Your task to perform on an android device: toggle pop-ups in chrome Image 0: 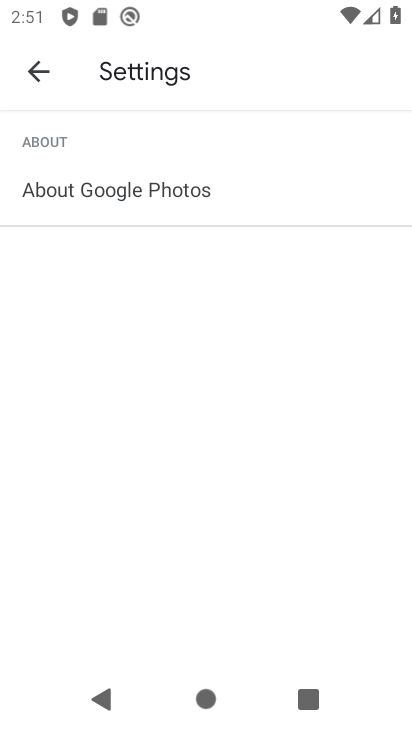
Step 0: press home button
Your task to perform on an android device: toggle pop-ups in chrome Image 1: 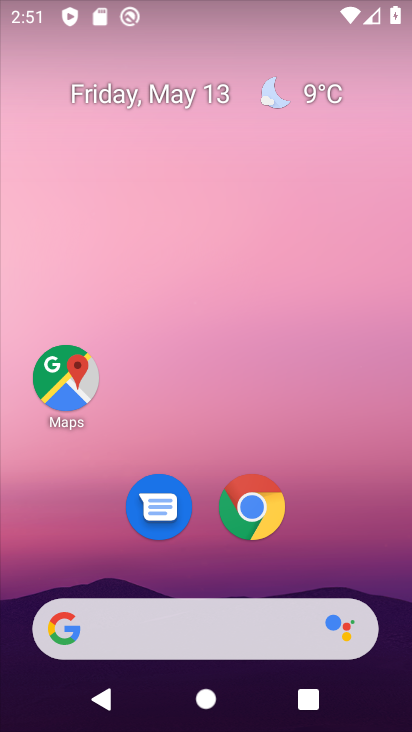
Step 1: click (204, 491)
Your task to perform on an android device: toggle pop-ups in chrome Image 2: 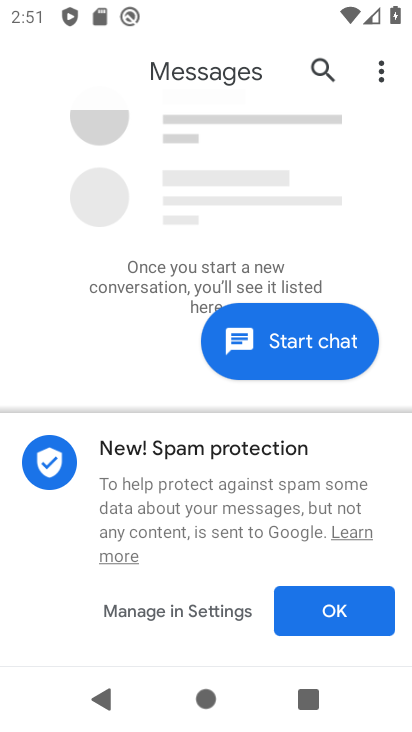
Step 2: press home button
Your task to perform on an android device: toggle pop-ups in chrome Image 3: 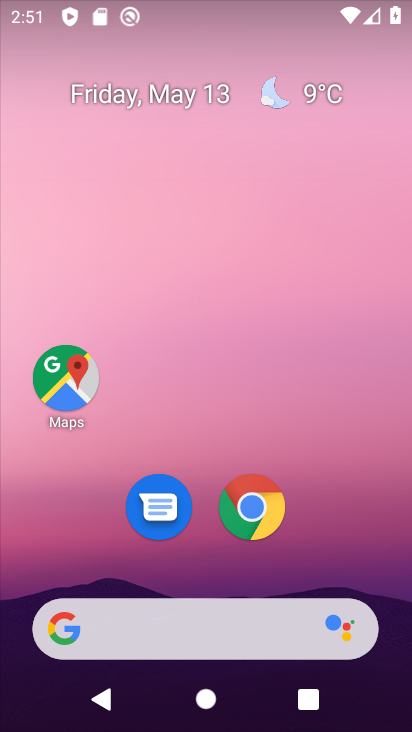
Step 3: click (227, 512)
Your task to perform on an android device: toggle pop-ups in chrome Image 4: 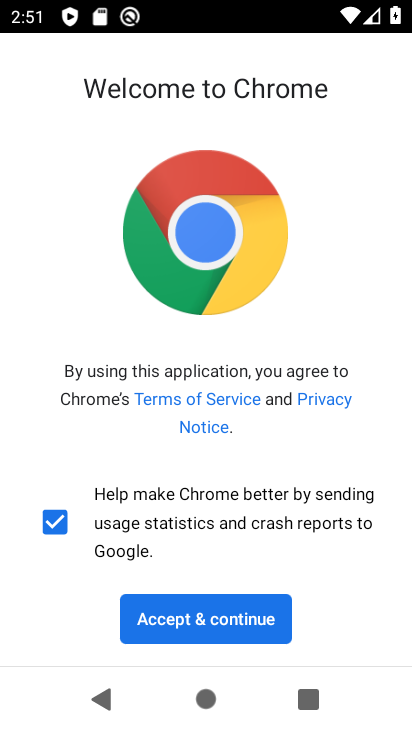
Step 4: click (239, 631)
Your task to perform on an android device: toggle pop-ups in chrome Image 5: 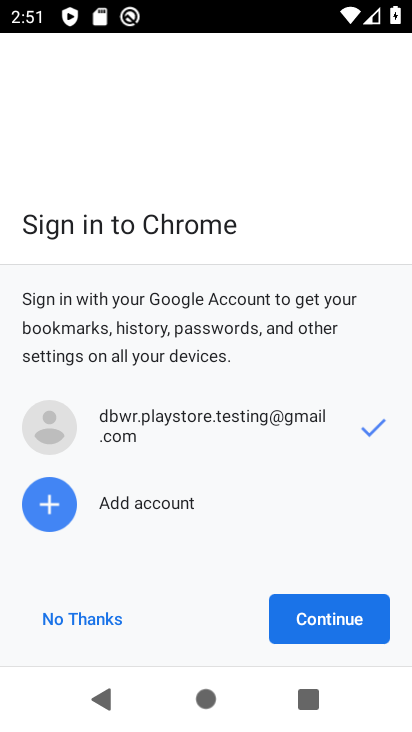
Step 5: click (350, 629)
Your task to perform on an android device: toggle pop-ups in chrome Image 6: 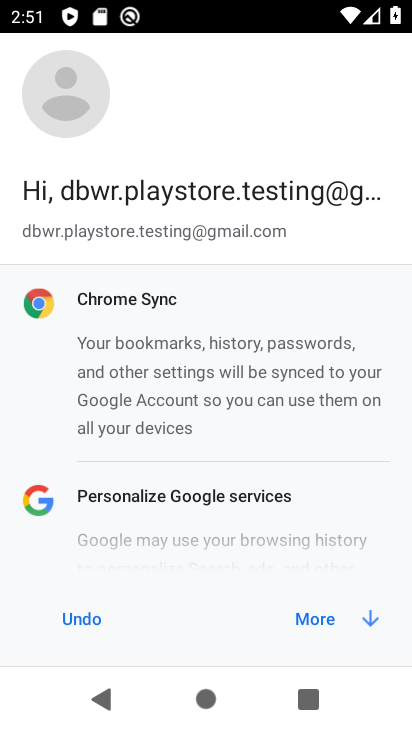
Step 6: click (350, 629)
Your task to perform on an android device: toggle pop-ups in chrome Image 7: 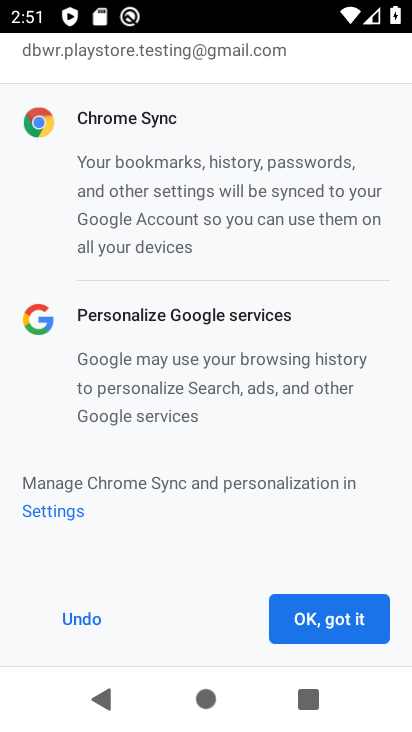
Step 7: click (350, 629)
Your task to perform on an android device: toggle pop-ups in chrome Image 8: 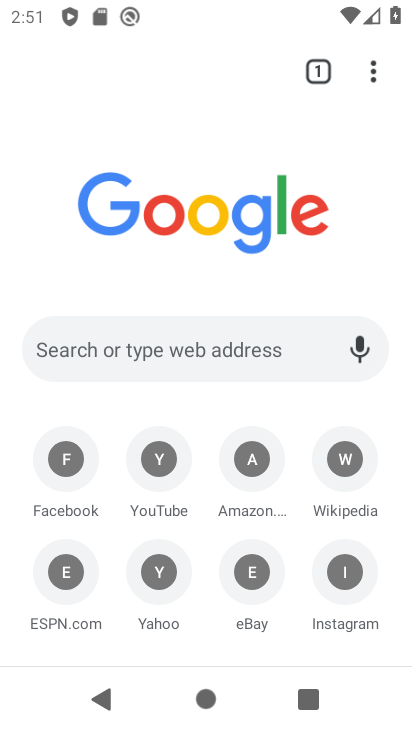
Step 8: click (374, 71)
Your task to perform on an android device: toggle pop-ups in chrome Image 9: 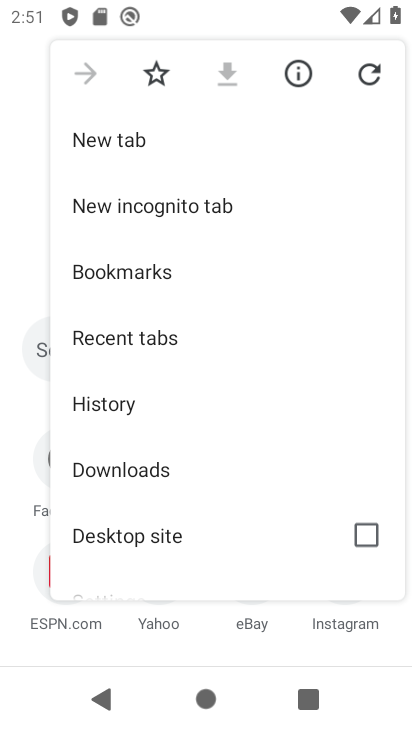
Step 9: drag from (233, 557) to (237, 46)
Your task to perform on an android device: toggle pop-ups in chrome Image 10: 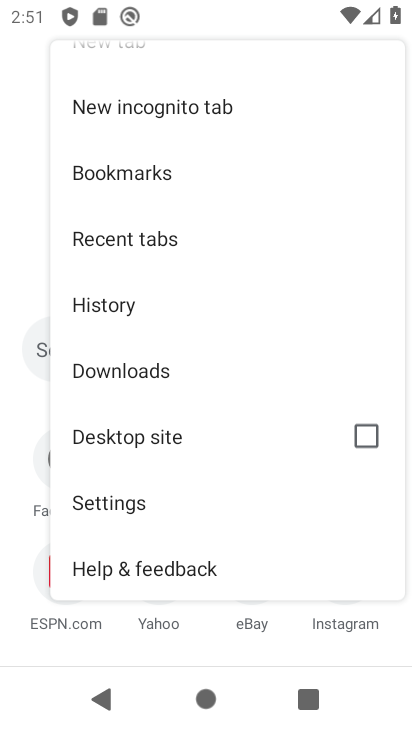
Step 10: click (131, 505)
Your task to perform on an android device: toggle pop-ups in chrome Image 11: 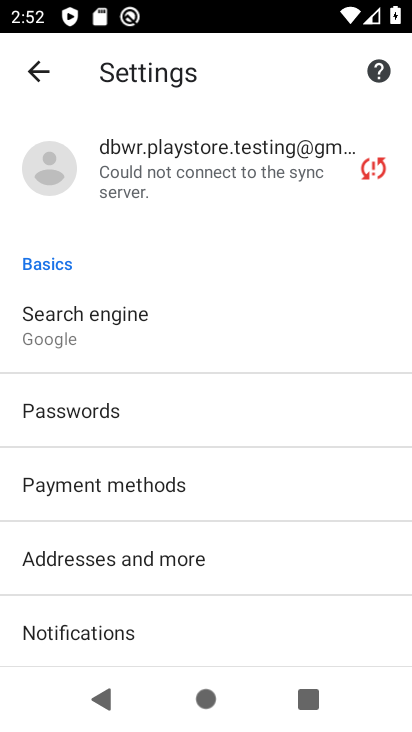
Step 11: drag from (225, 612) to (292, 150)
Your task to perform on an android device: toggle pop-ups in chrome Image 12: 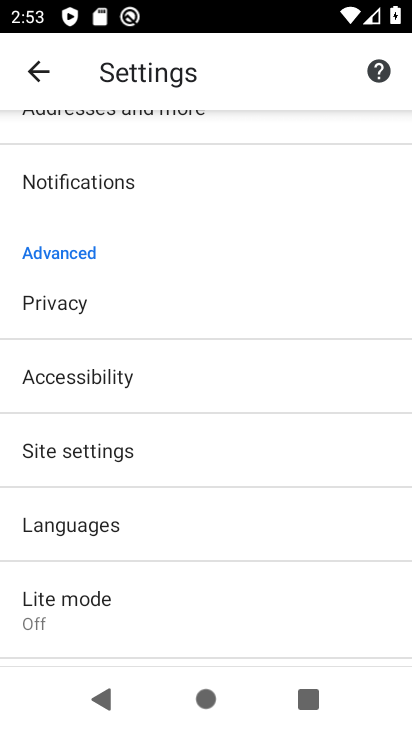
Step 12: click (119, 439)
Your task to perform on an android device: toggle pop-ups in chrome Image 13: 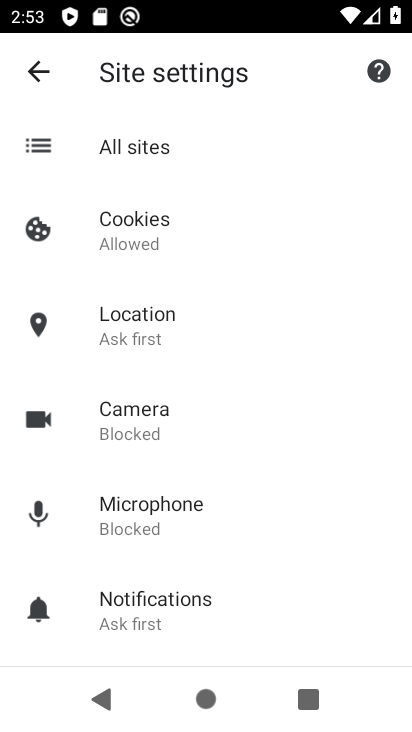
Step 13: drag from (210, 586) to (269, 106)
Your task to perform on an android device: toggle pop-ups in chrome Image 14: 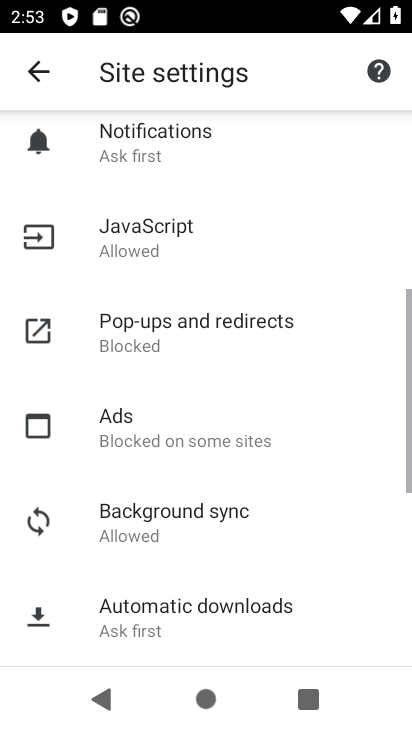
Step 14: click (147, 348)
Your task to perform on an android device: toggle pop-ups in chrome Image 15: 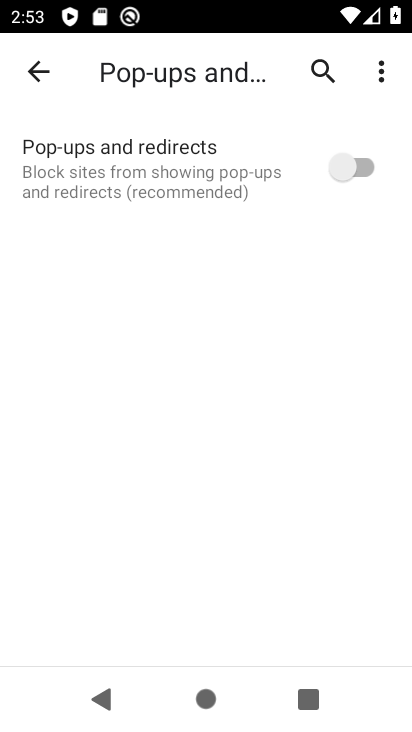
Step 15: click (367, 165)
Your task to perform on an android device: toggle pop-ups in chrome Image 16: 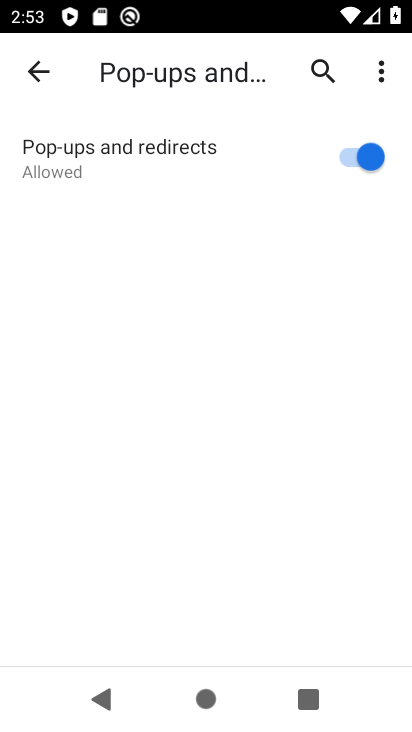
Step 16: task complete